Your task to perform on an android device: find photos in the google photos app Image 0: 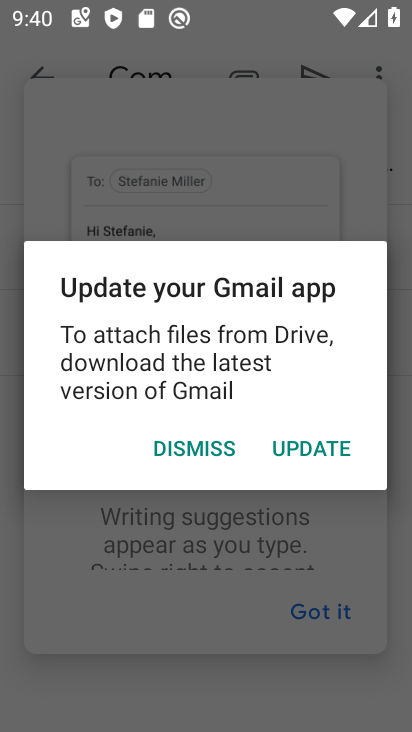
Step 0: press home button
Your task to perform on an android device: find photos in the google photos app Image 1: 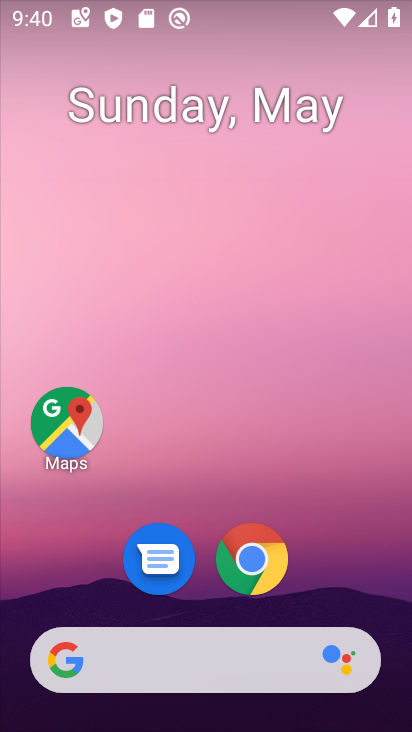
Step 1: drag from (345, 593) to (277, 162)
Your task to perform on an android device: find photos in the google photos app Image 2: 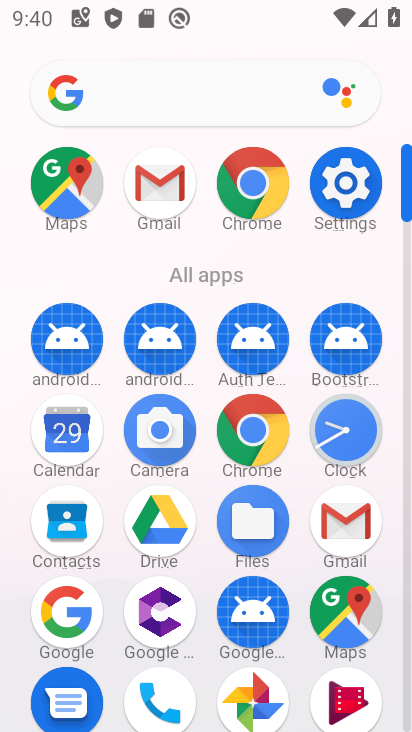
Step 2: drag from (99, 654) to (105, 380)
Your task to perform on an android device: find photos in the google photos app Image 3: 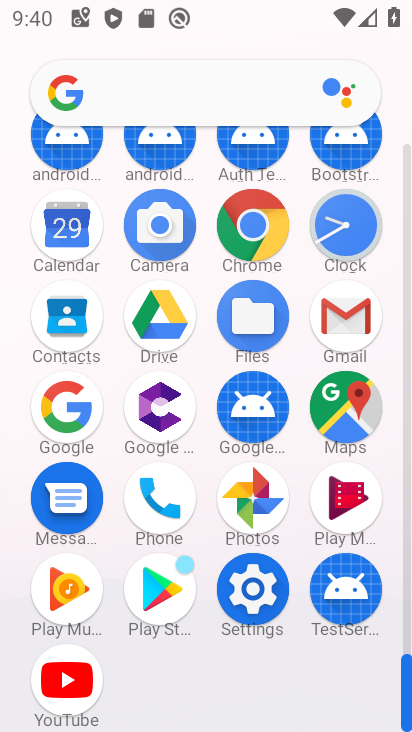
Step 3: click (264, 499)
Your task to perform on an android device: find photos in the google photos app Image 4: 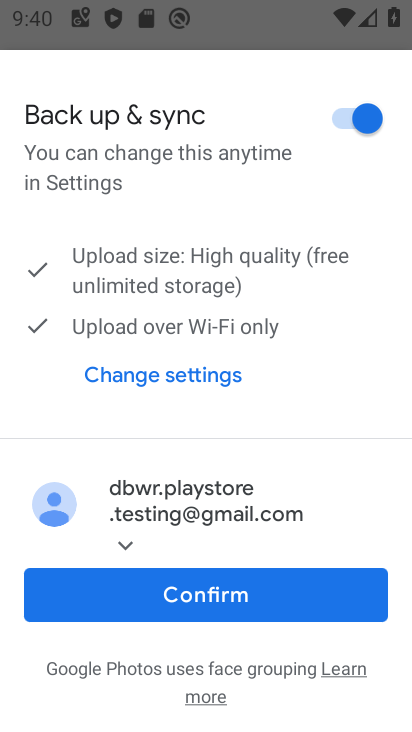
Step 4: click (207, 608)
Your task to perform on an android device: find photos in the google photos app Image 5: 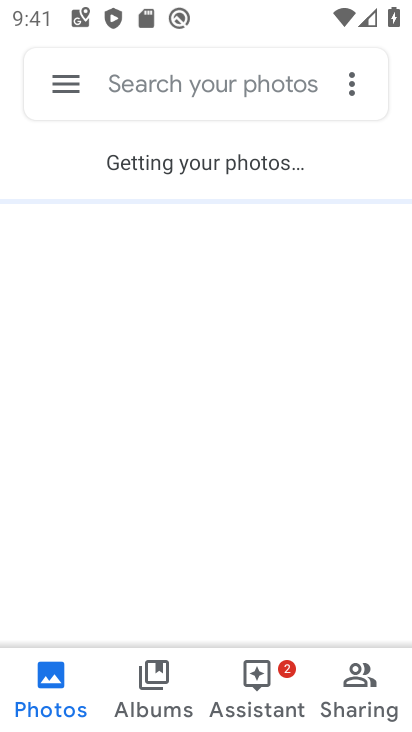
Step 5: click (231, 85)
Your task to perform on an android device: find photos in the google photos app Image 6: 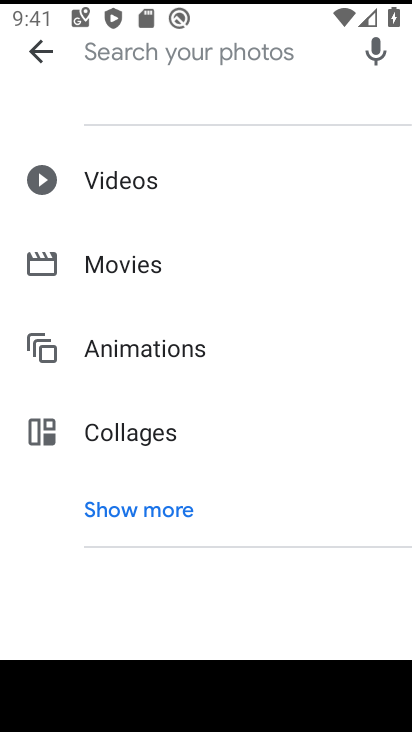
Step 6: task complete